Your task to perform on an android device: Do I have any events today? Image 0: 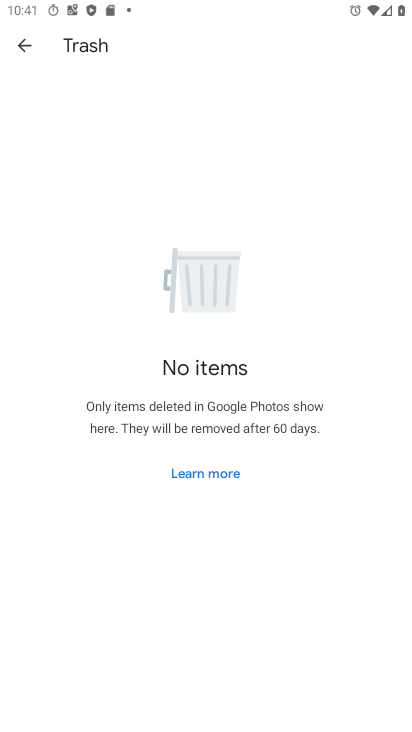
Step 0: press home button
Your task to perform on an android device: Do I have any events today? Image 1: 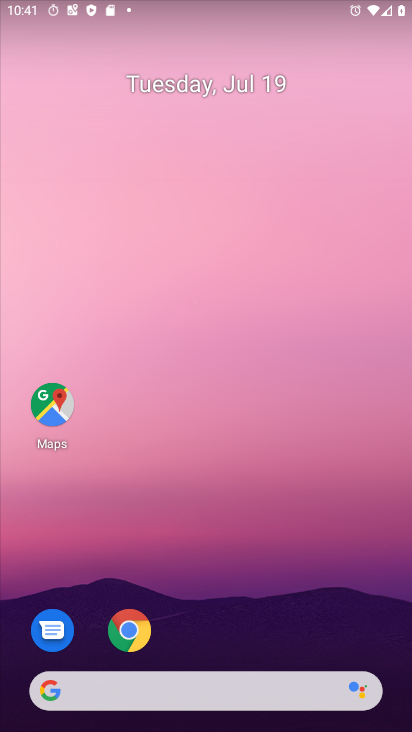
Step 1: drag from (294, 563) to (242, 216)
Your task to perform on an android device: Do I have any events today? Image 2: 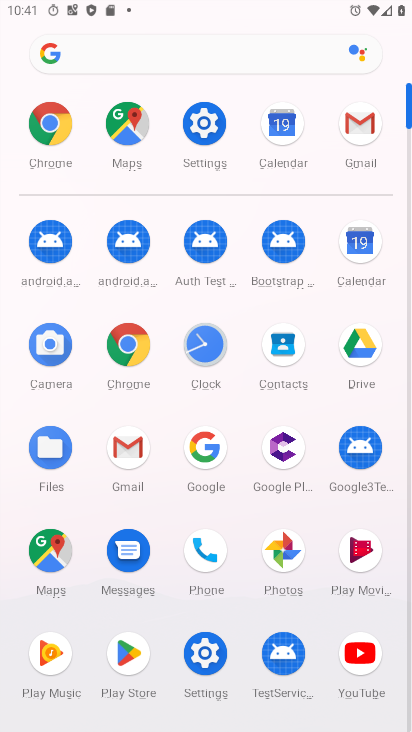
Step 2: click (352, 241)
Your task to perform on an android device: Do I have any events today? Image 3: 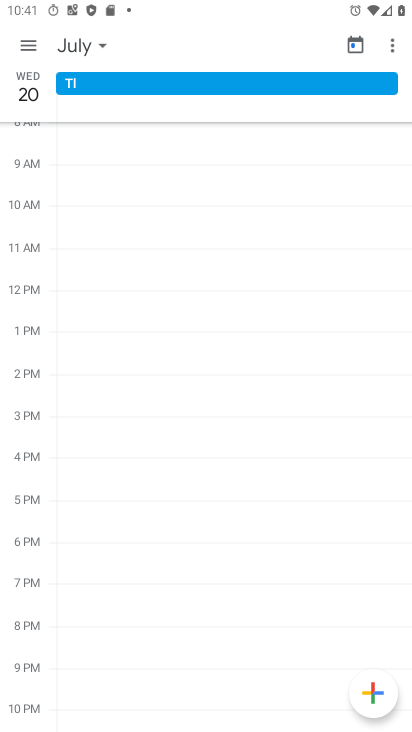
Step 3: task complete